Your task to perform on an android device: clear all cookies in the chrome app Image 0: 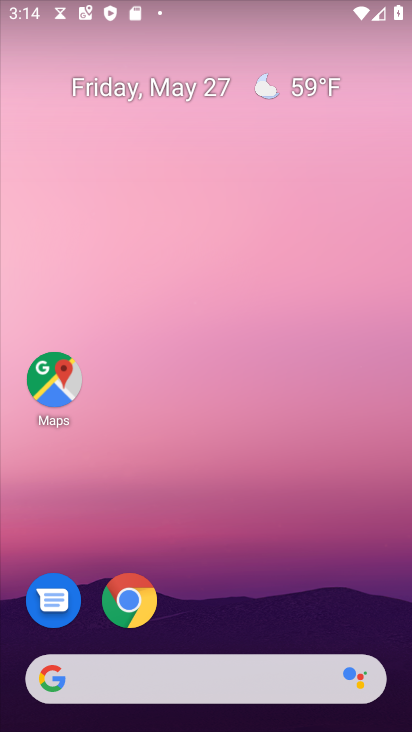
Step 0: click (129, 599)
Your task to perform on an android device: clear all cookies in the chrome app Image 1: 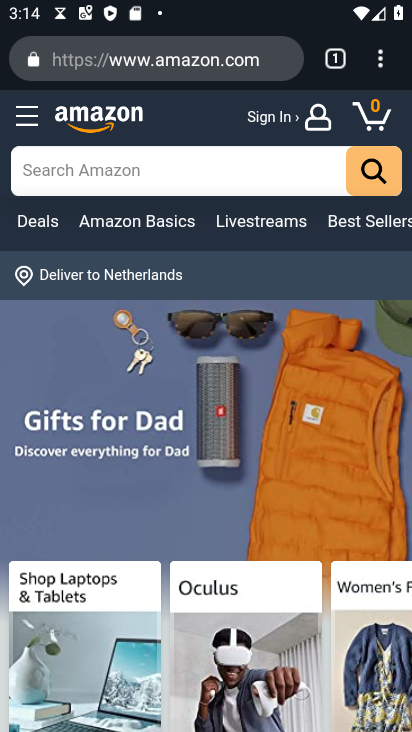
Step 1: click (382, 61)
Your task to perform on an android device: clear all cookies in the chrome app Image 2: 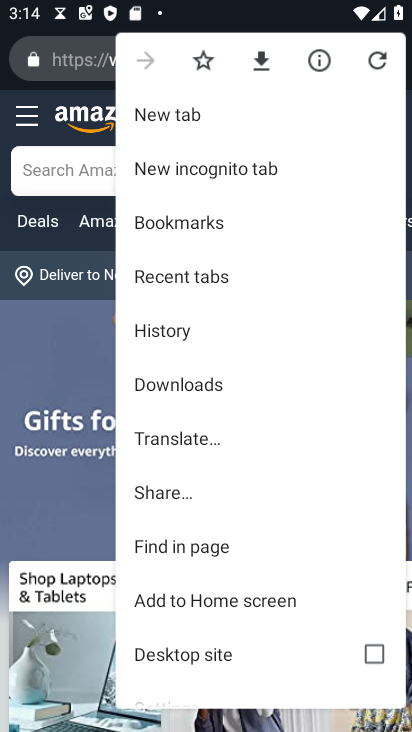
Step 2: drag from (183, 519) to (199, 414)
Your task to perform on an android device: clear all cookies in the chrome app Image 3: 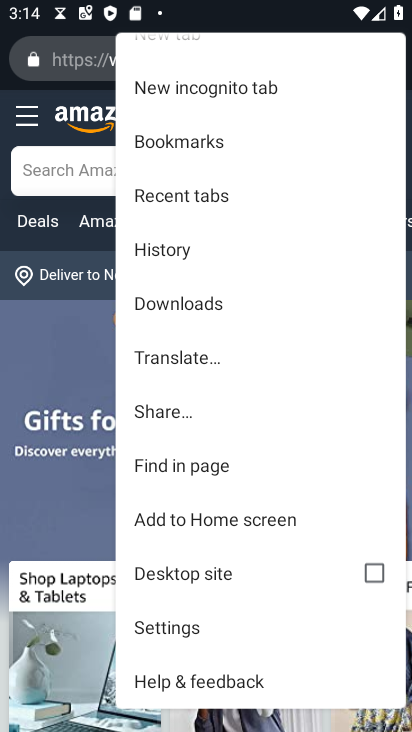
Step 3: drag from (184, 598) to (203, 508)
Your task to perform on an android device: clear all cookies in the chrome app Image 4: 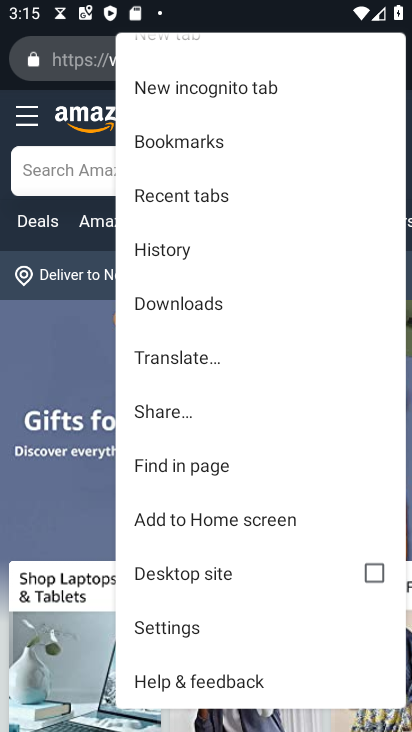
Step 4: click (185, 629)
Your task to perform on an android device: clear all cookies in the chrome app Image 5: 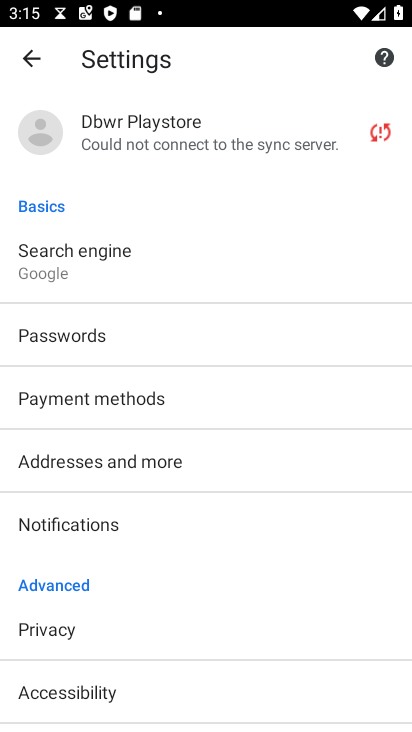
Step 5: click (67, 627)
Your task to perform on an android device: clear all cookies in the chrome app Image 6: 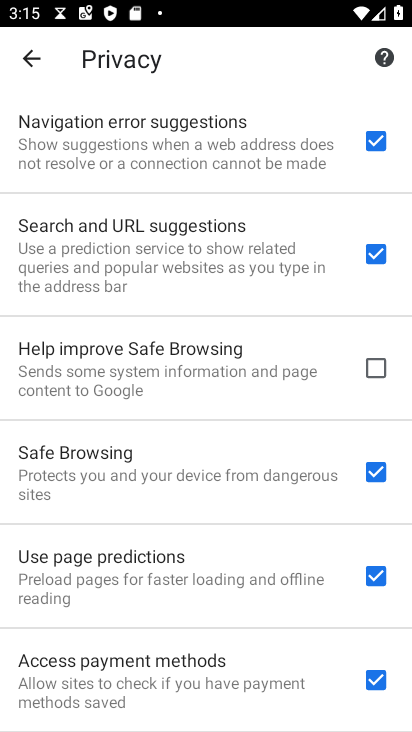
Step 6: drag from (158, 639) to (208, 494)
Your task to perform on an android device: clear all cookies in the chrome app Image 7: 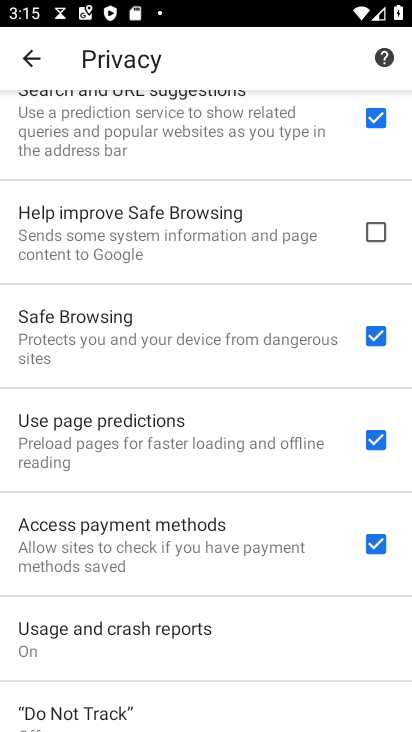
Step 7: drag from (161, 650) to (218, 539)
Your task to perform on an android device: clear all cookies in the chrome app Image 8: 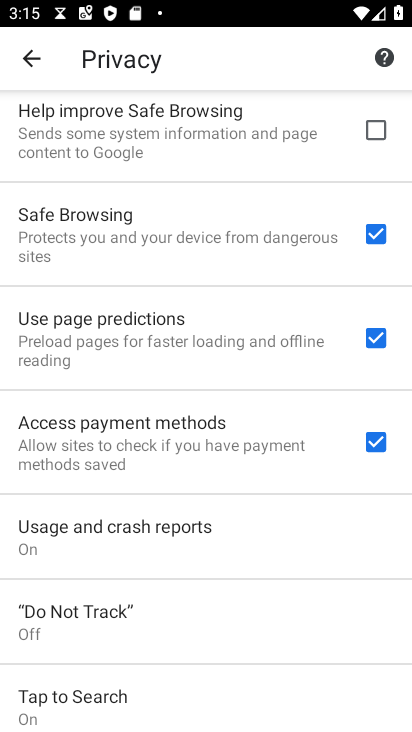
Step 8: drag from (159, 696) to (198, 567)
Your task to perform on an android device: clear all cookies in the chrome app Image 9: 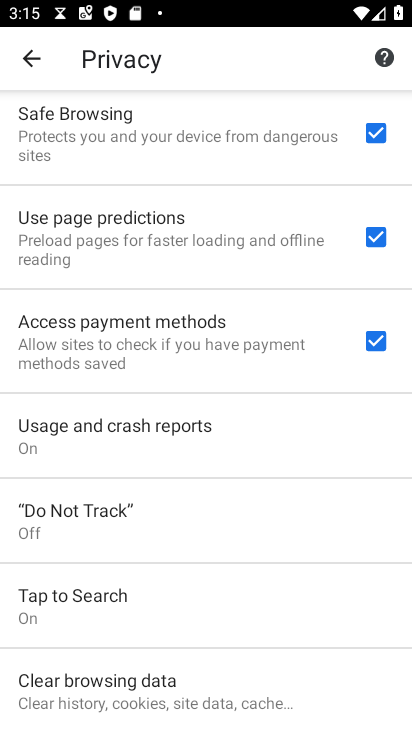
Step 9: click (134, 681)
Your task to perform on an android device: clear all cookies in the chrome app Image 10: 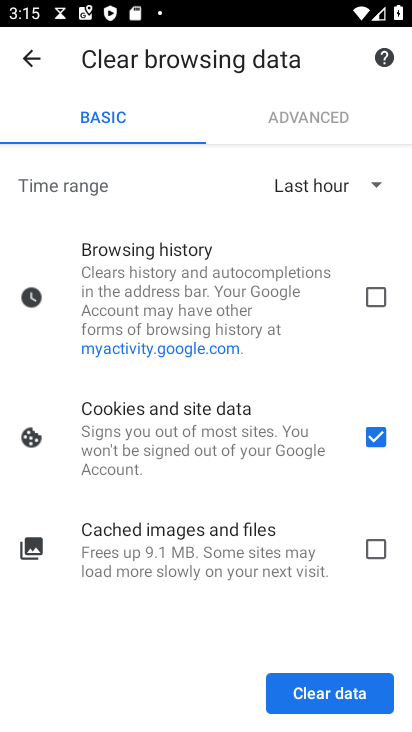
Step 10: click (361, 184)
Your task to perform on an android device: clear all cookies in the chrome app Image 11: 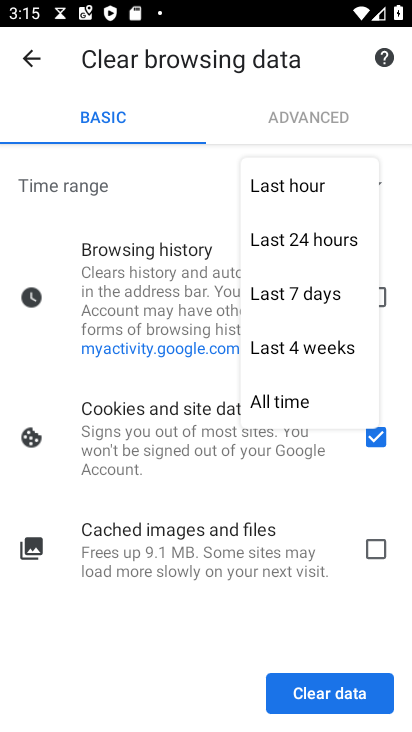
Step 11: click (284, 402)
Your task to perform on an android device: clear all cookies in the chrome app Image 12: 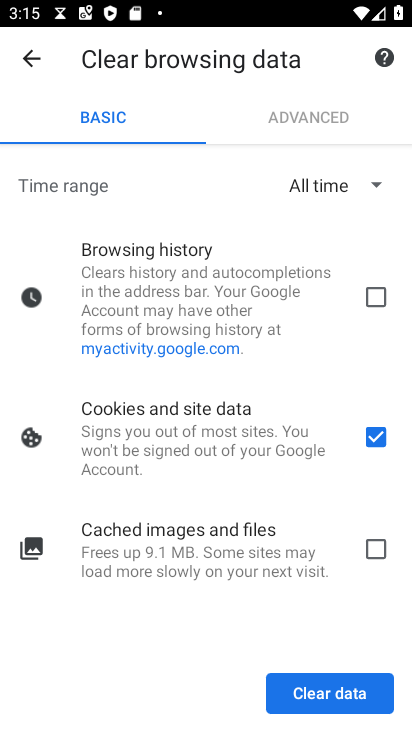
Step 12: click (352, 692)
Your task to perform on an android device: clear all cookies in the chrome app Image 13: 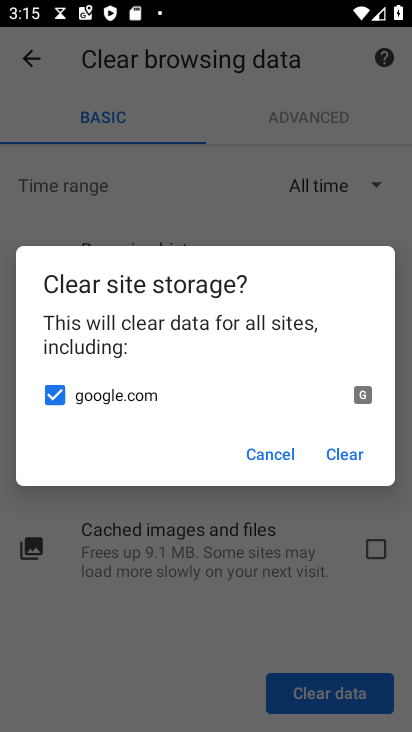
Step 13: click (353, 462)
Your task to perform on an android device: clear all cookies in the chrome app Image 14: 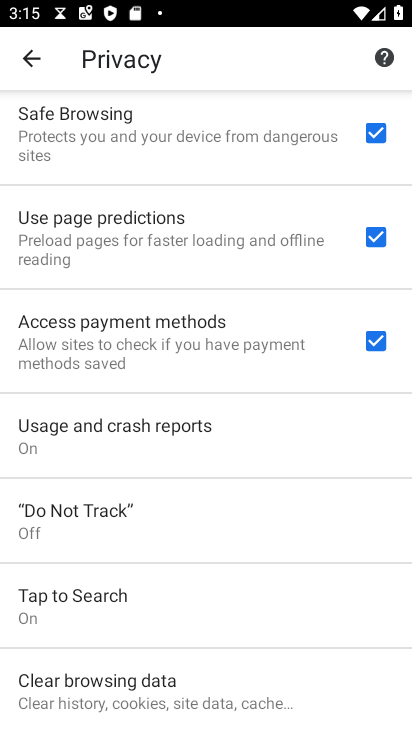
Step 14: task complete